Your task to perform on an android device: Show me popular videos on Youtube Image 0: 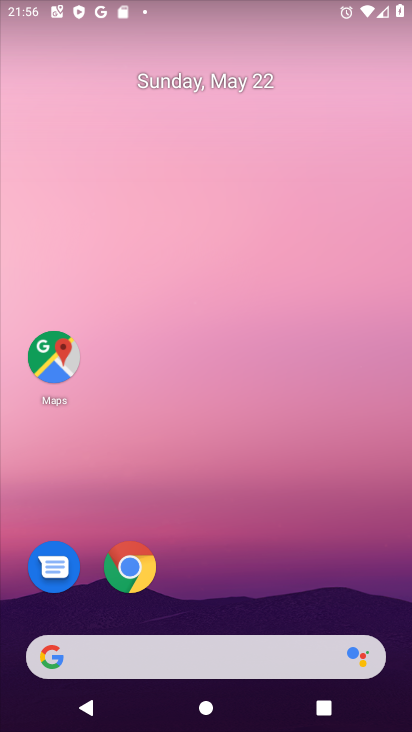
Step 0: drag from (246, 583) to (228, 9)
Your task to perform on an android device: Show me popular videos on Youtube Image 1: 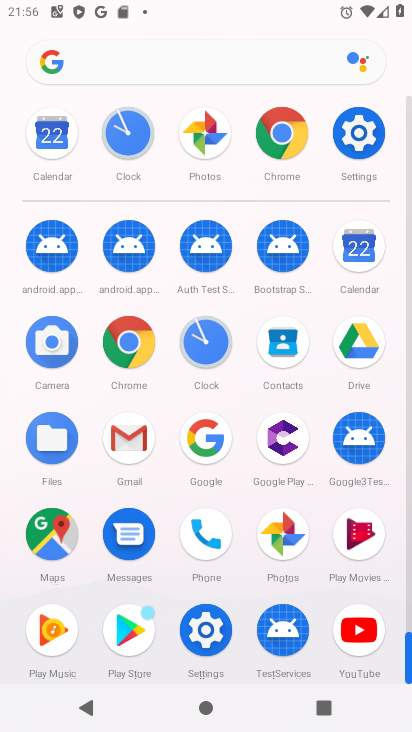
Step 1: click (361, 639)
Your task to perform on an android device: Show me popular videos on Youtube Image 2: 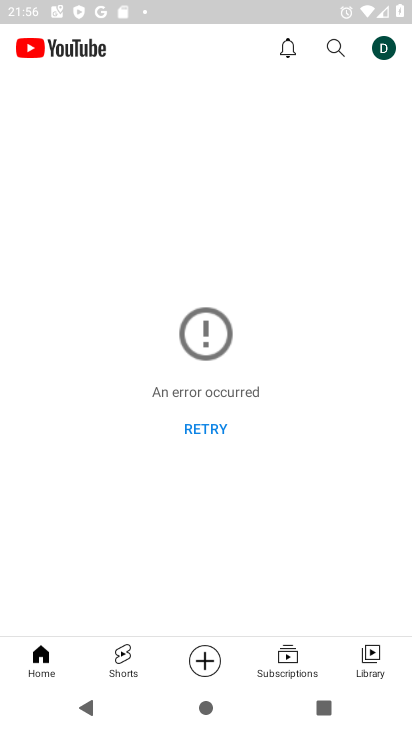
Step 2: click (210, 426)
Your task to perform on an android device: Show me popular videos on Youtube Image 3: 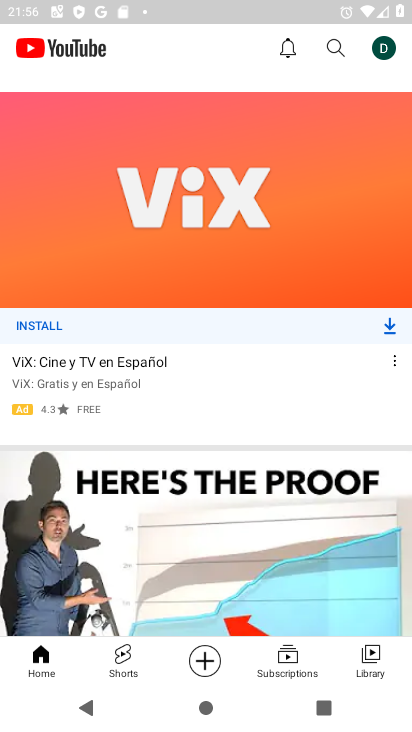
Step 3: drag from (191, 503) to (201, 267)
Your task to perform on an android device: Show me popular videos on Youtube Image 4: 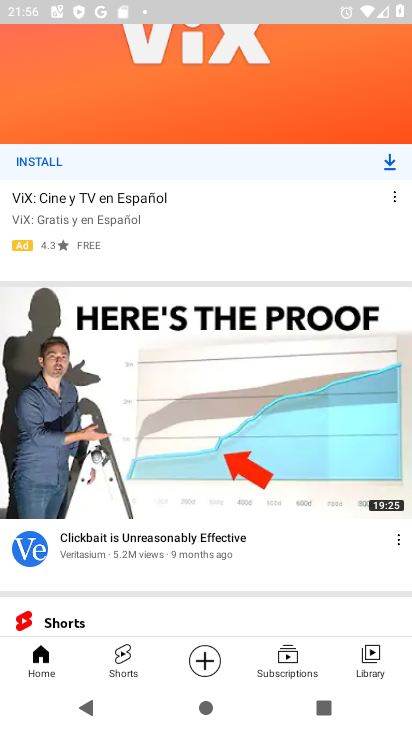
Step 4: drag from (202, 330) to (171, 674)
Your task to perform on an android device: Show me popular videos on Youtube Image 5: 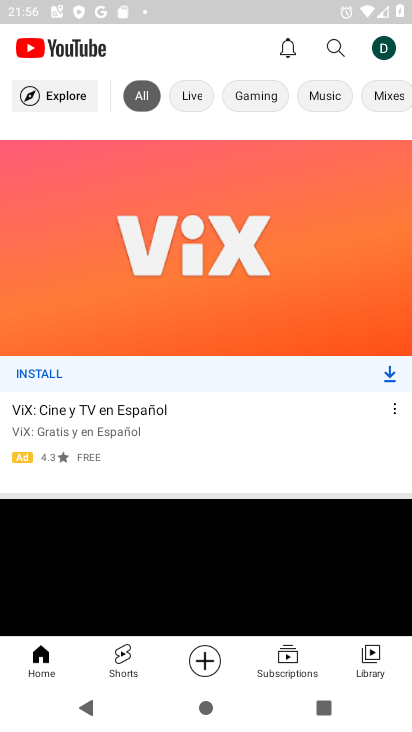
Step 5: click (61, 95)
Your task to perform on an android device: Show me popular videos on Youtube Image 6: 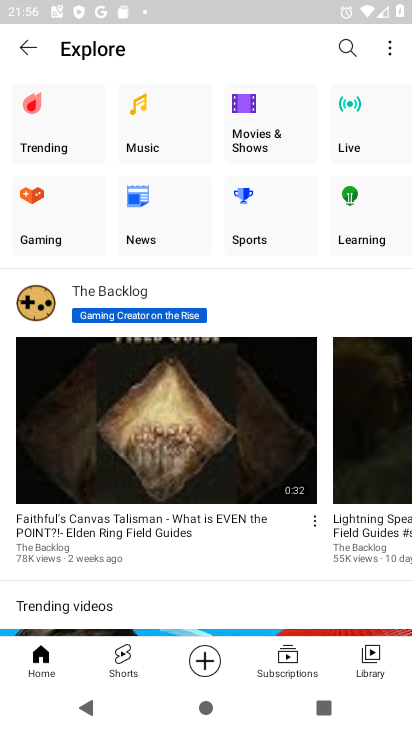
Step 6: click (52, 127)
Your task to perform on an android device: Show me popular videos on Youtube Image 7: 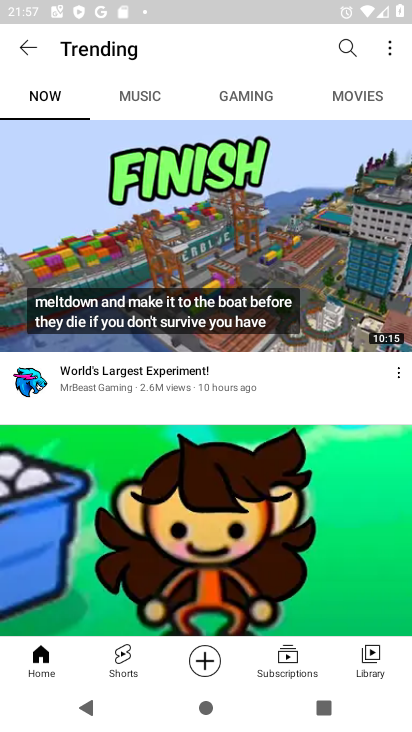
Step 7: task complete